Your task to perform on an android device: find photos in the google photos app Image 0: 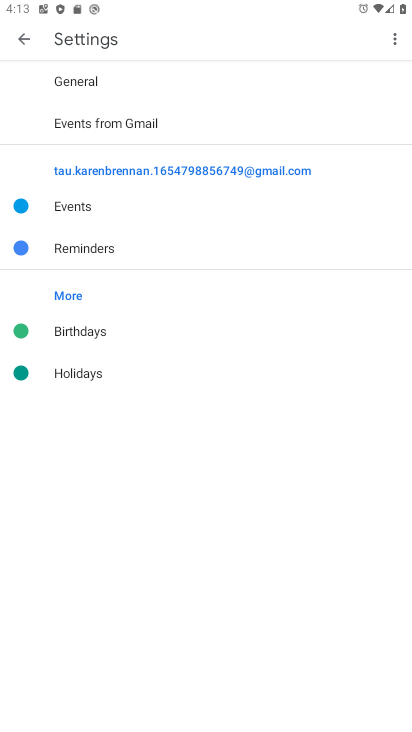
Step 0: press home button
Your task to perform on an android device: find photos in the google photos app Image 1: 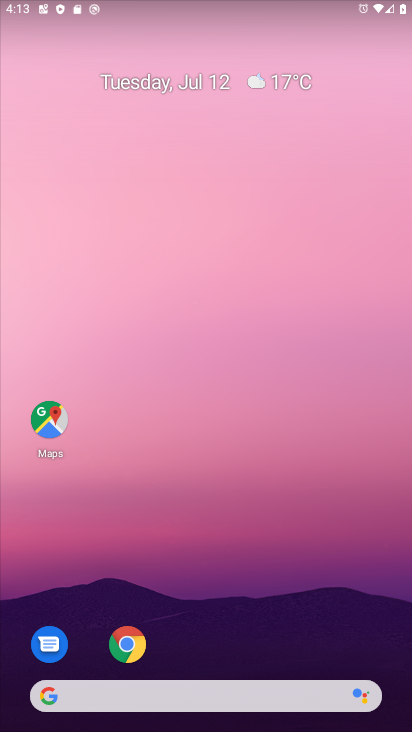
Step 1: drag from (237, 640) to (246, 2)
Your task to perform on an android device: find photos in the google photos app Image 2: 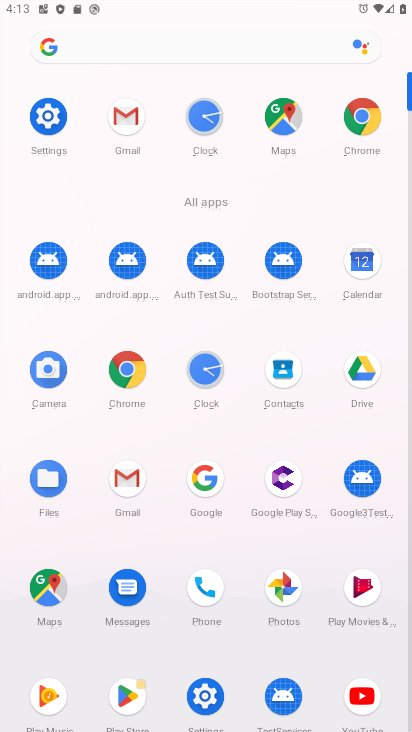
Step 2: click (293, 587)
Your task to perform on an android device: find photos in the google photos app Image 3: 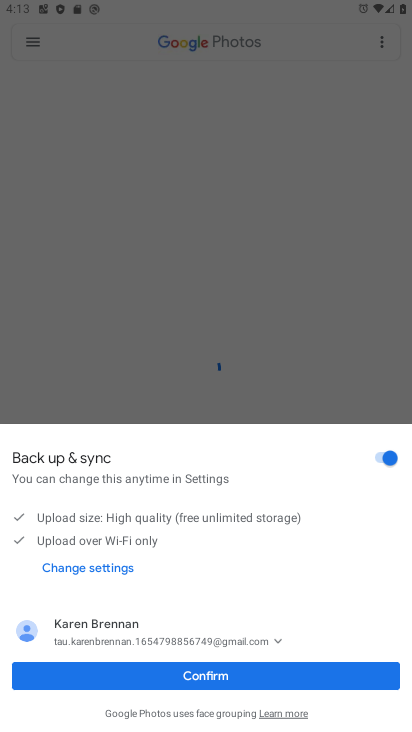
Step 3: click (272, 683)
Your task to perform on an android device: find photos in the google photos app Image 4: 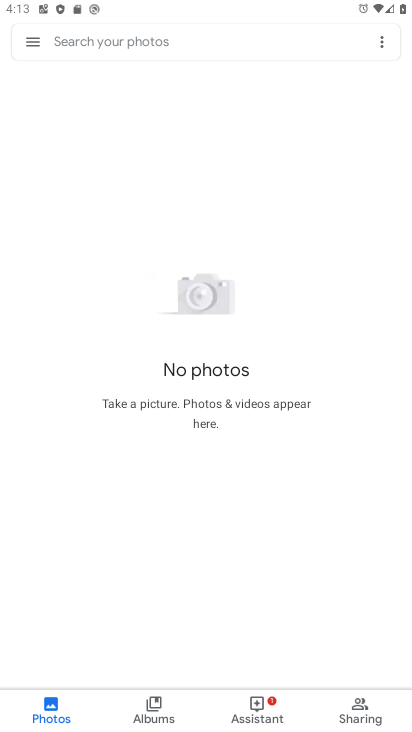
Step 4: task complete